Your task to perform on an android device: Open Android settings Image 0: 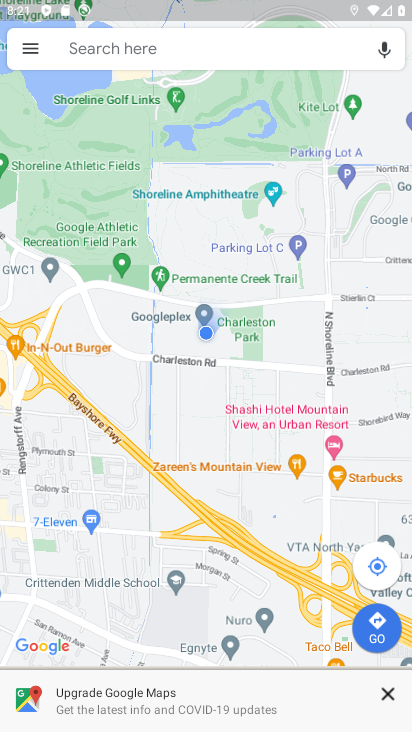
Step 0: click (43, 401)
Your task to perform on an android device: Open Android settings Image 1: 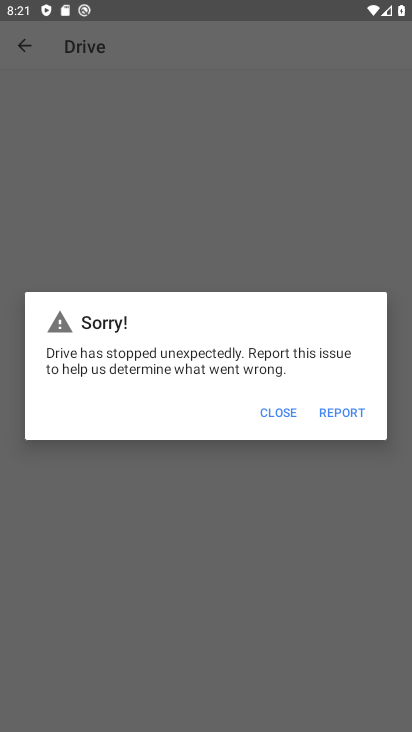
Step 1: press home button
Your task to perform on an android device: Open Android settings Image 2: 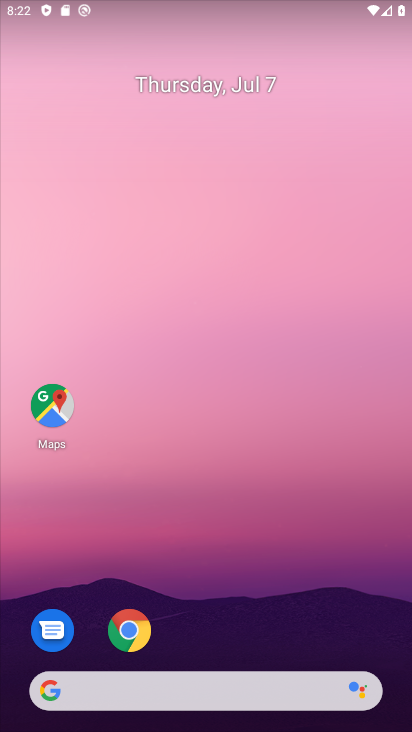
Step 2: drag from (274, 559) to (274, 250)
Your task to perform on an android device: Open Android settings Image 3: 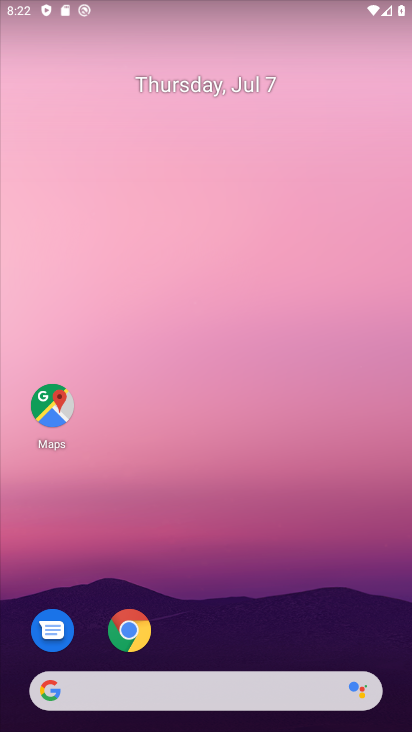
Step 3: drag from (242, 602) to (241, 207)
Your task to perform on an android device: Open Android settings Image 4: 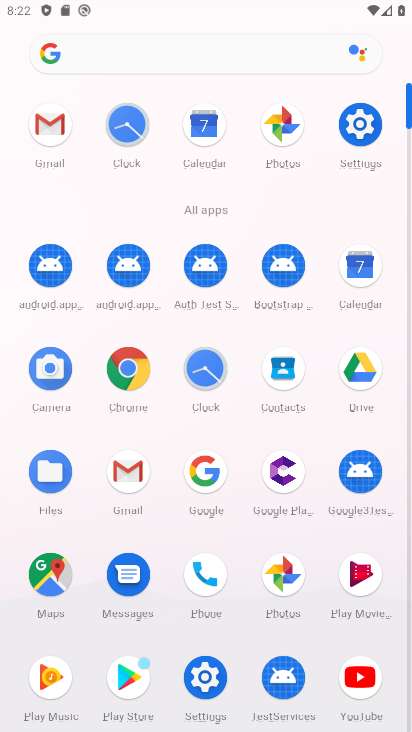
Step 4: click (356, 141)
Your task to perform on an android device: Open Android settings Image 5: 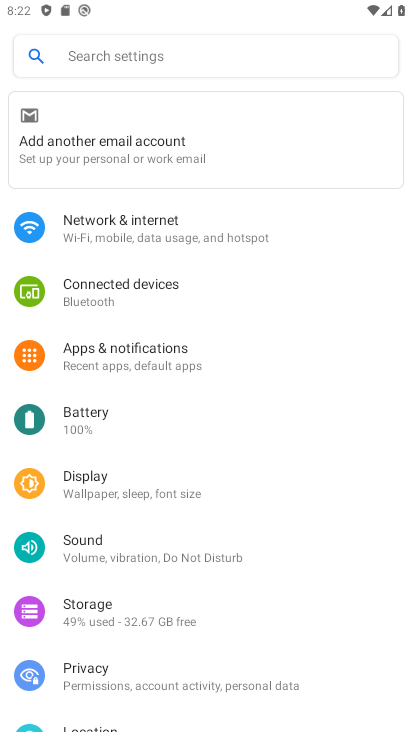
Step 5: drag from (150, 571) to (146, 390)
Your task to perform on an android device: Open Android settings Image 6: 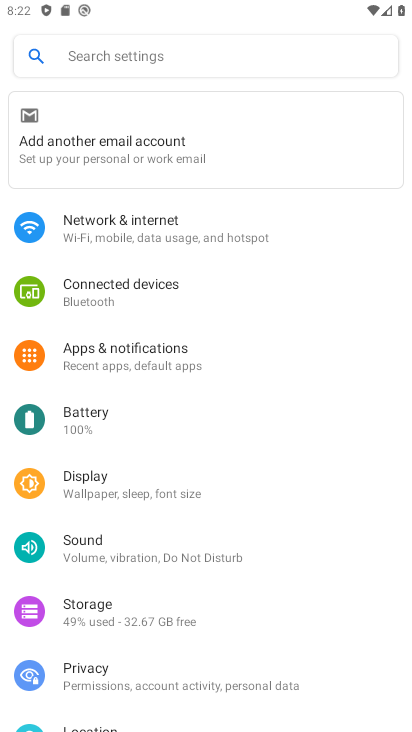
Step 6: drag from (127, 664) to (80, 188)
Your task to perform on an android device: Open Android settings Image 7: 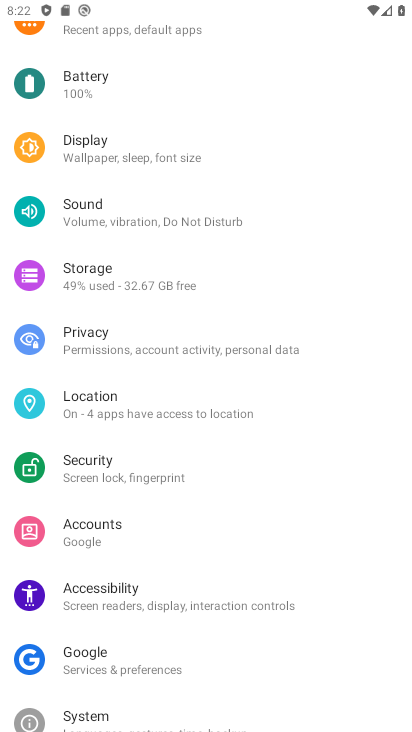
Step 7: drag from (141, 691) to (92, 350)
Your task to perform on an android device: Open Android settings Image 8: 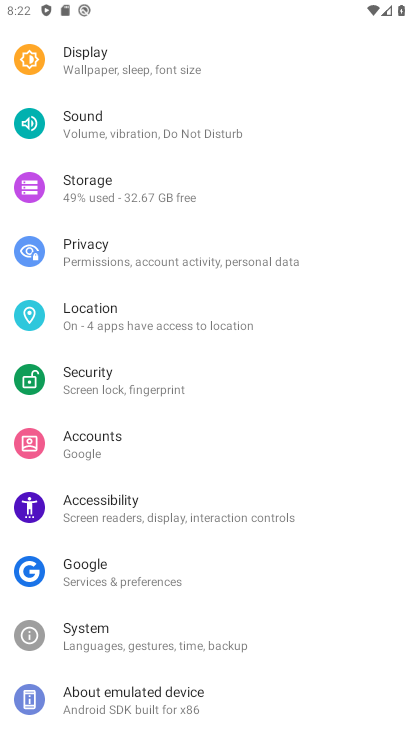
Step 8: click (137, 636)
Your task to perform on an android device: Open Android settings Image 9: 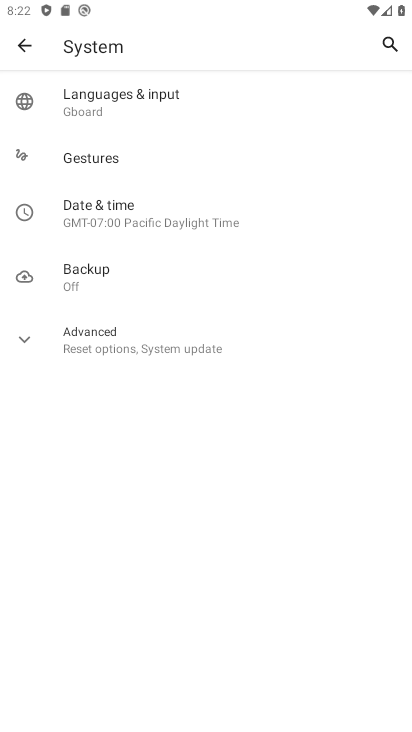
Step 9: task complete